Your task to perform on an android device: clear history in the chrome app Image 0: 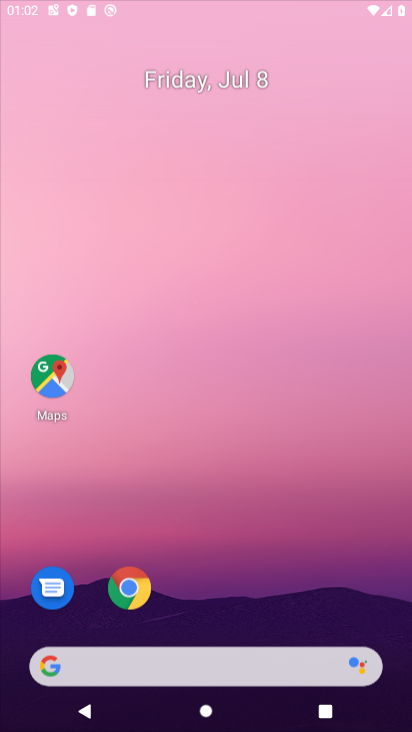
Step 0: click (266, 213)
Your task to perform on an android device: clear history in the chrome app Image 1: 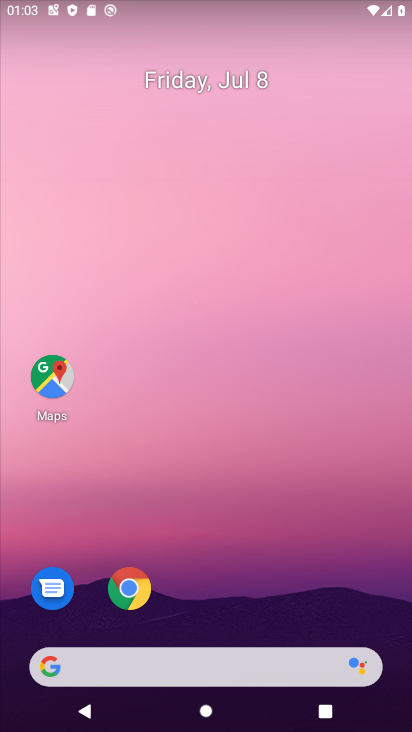
Step 1: drag from (176, 598) to (201, 49)
Your task to perform on an android device: clear history in the chrome app Image 2: 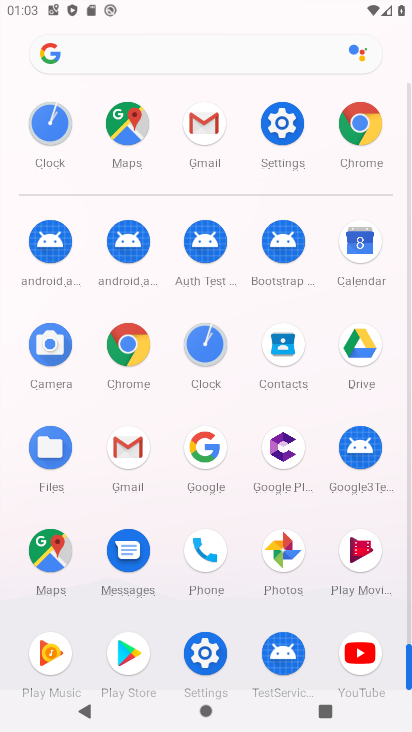
Step 2: click (127, 335)
Your task to perform on an android device: clear history in the chrome app Image 3: 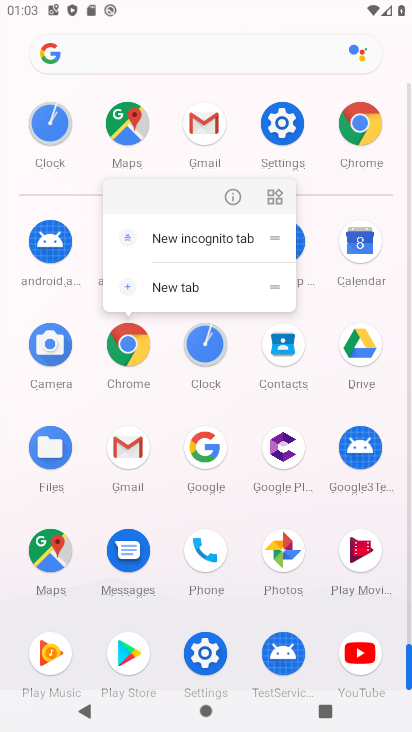
Step 3: click (225, 198)
Your task to perform on an android device: clear history in the chrome app Image 4: 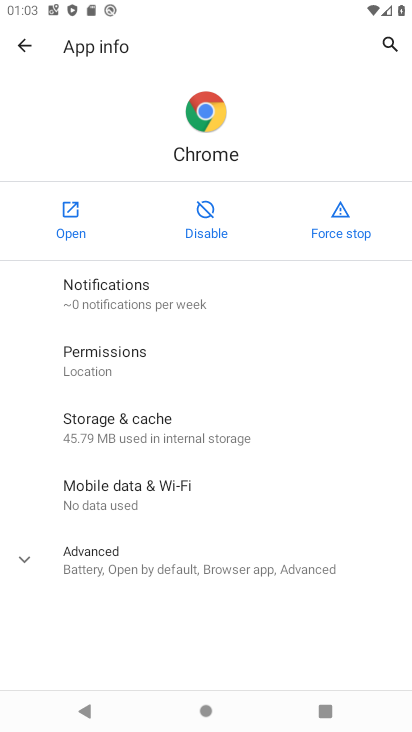
Step 4: click (60, 208)
Your task to perform on an android device: clear history in the chrome app Image 5: 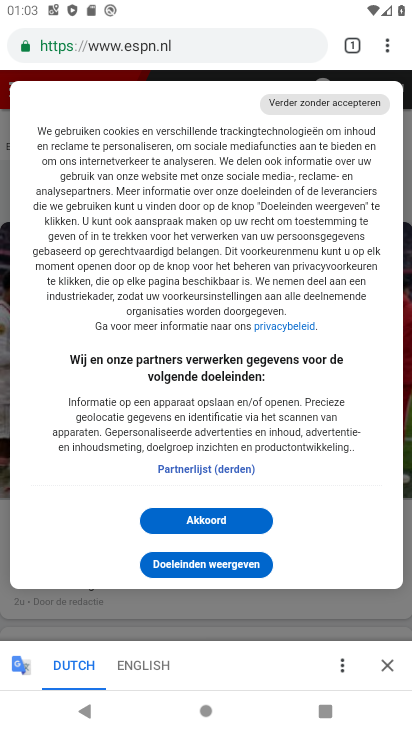
Step 5: click (388, 45)
Your task to perform on an android device: clear history in the chrome app Image 6: 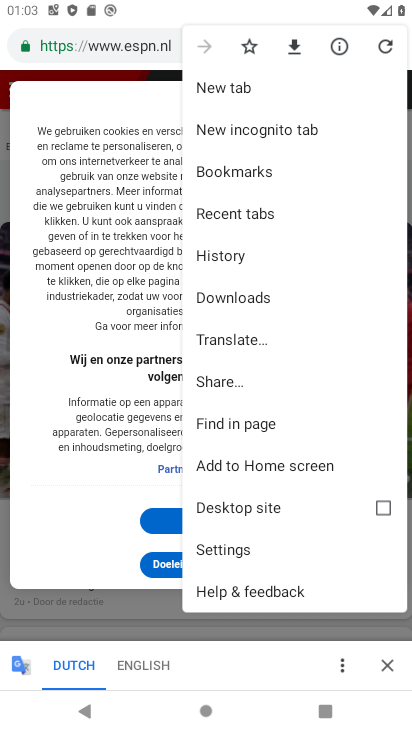
Step 6: drag from (286, 531) to (215, 43)
Your task to perform on an android device: clear history in the chrome app Image 7: 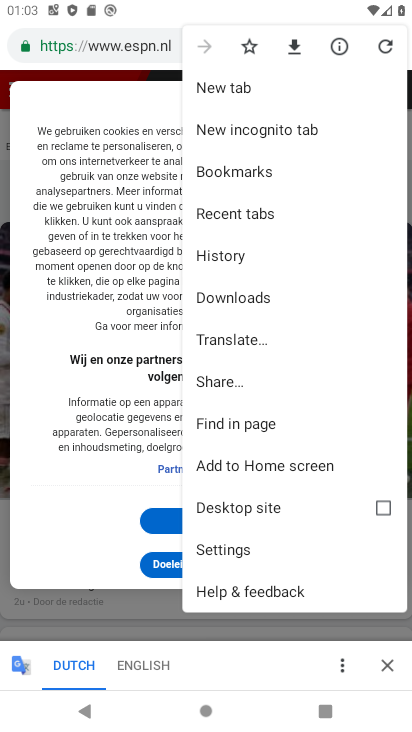
Step 7: click (236, 245)
Your task to perform on an android device: clear history in the chrome app Image 8: 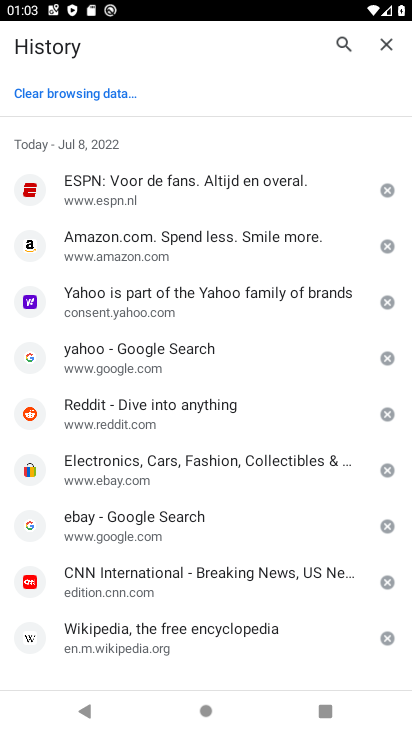
Step 8: drag from (203, 488) to (62, 5)
Your task to perform on an android device: clear history in the chrome app Image 9: 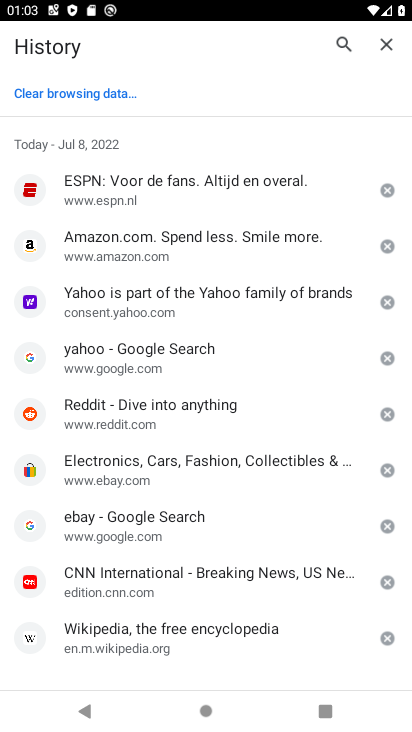
Step 9: click (59, 104)
Your task to perform on an android device: clear history in the chrome app Image 10: 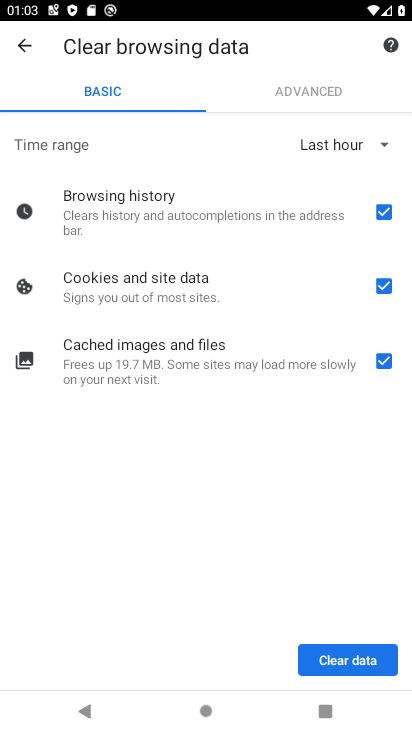
Step 10: click (302, 139)
Your task to perform on an android device: clear history in the chrome app Image 11: 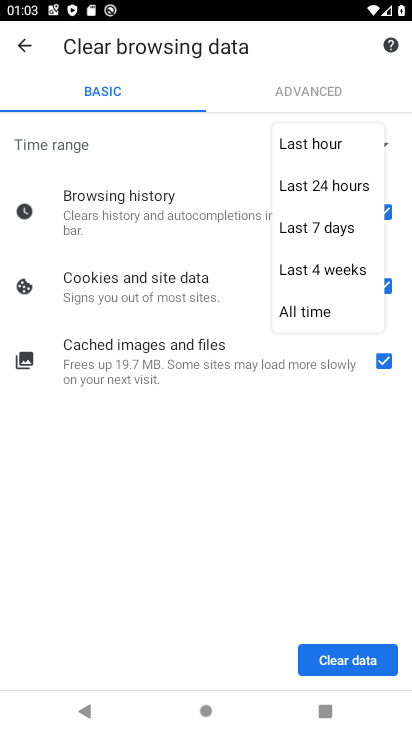
Step 11: click (311, 310)
Your task to perform on an android device: clear history in the chrome app Image 12: 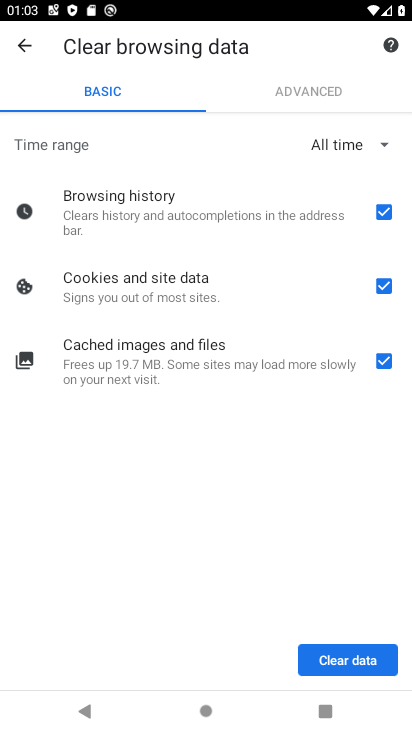
Step 12: click (367, 663)
Your task to perform on an android device: clear history in the chrome app Image 13: 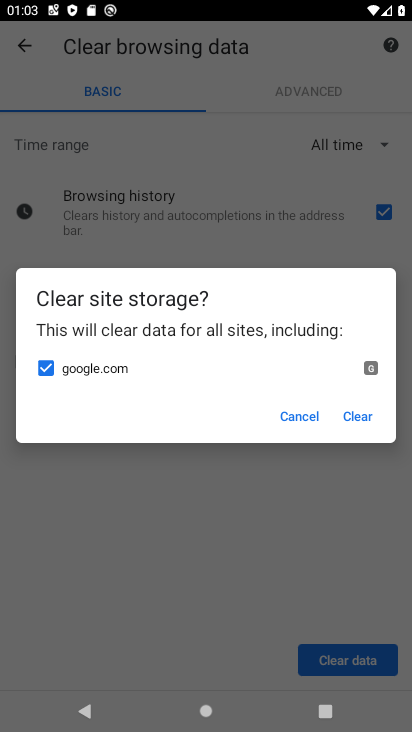
Step 13: click (351, 418)
Your task to perform on an android device: clear history in the chrome app Image 14: 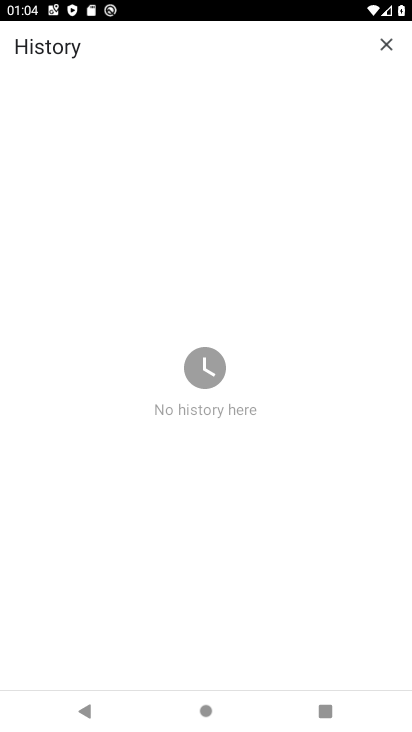
Step 14: drag from (183, 629) to (174, 177)
Your task to perform on an android device: clear history in the chrome app Image 15: 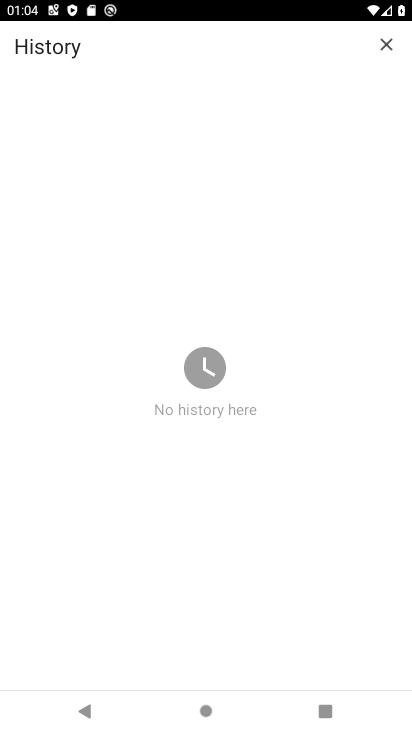
Step 15: press home button
Your task to perform on an android device: clear history in the chrome app Image 16: 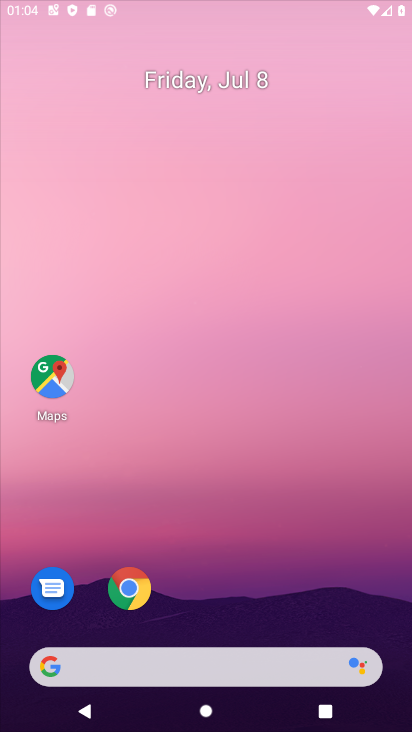
Step 16: drag from (149, 476) to (233, 5)
Your task to perform on an android device: clear history in the chrome app Image 17: 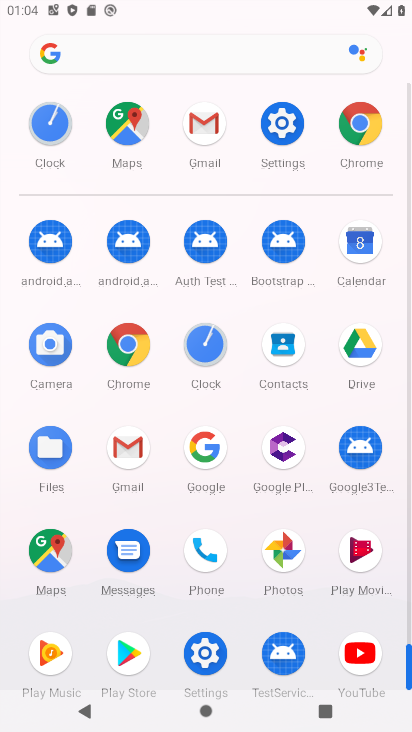
Step 17: click (126, 338)
Your task to perform on an android device: clear history in the chrome app Image 18: 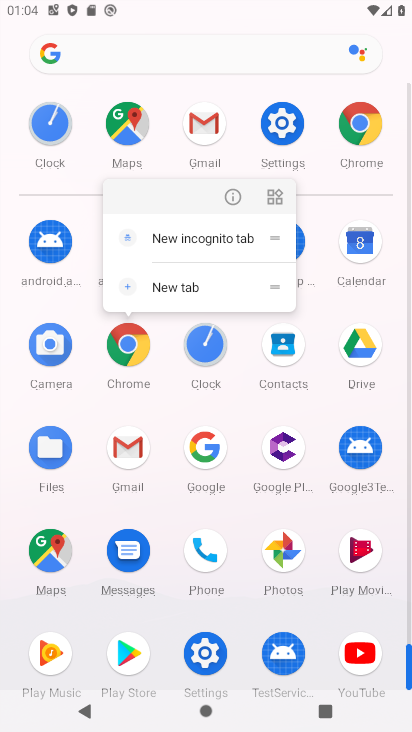
Step 18: click (231, 187)
Your task to perform on an android device: clear history in the chrome app Image 19: 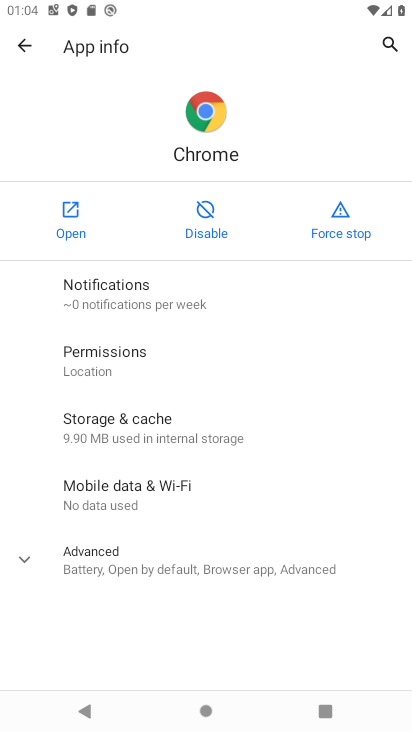
Step 19: click (72, 219)
Your task to perform on an android device: clear history in the chrome app Image 20: 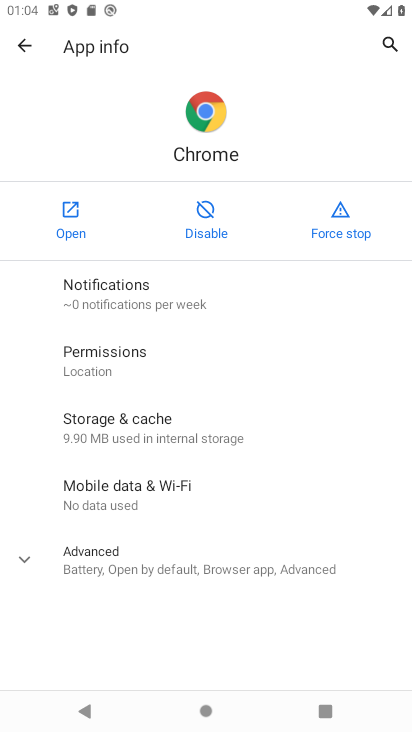
Step 20: click (72, 219)
Your task to perform on an android device: clear history in the chrome app Image 21: 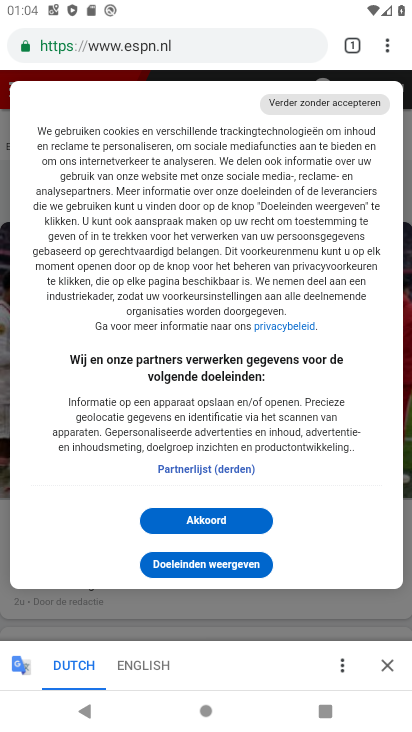
Step 21: click (383, 40)
Your task to perform on an android device: clear history in the chrome app Image 22: 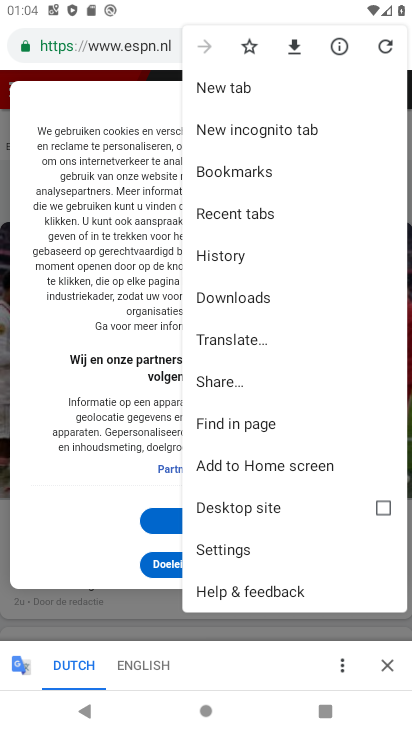
Step 22: drag from (261, 420) to (257, 190)
Your task to perform on an android device: clear history in the chrome app Image 23: 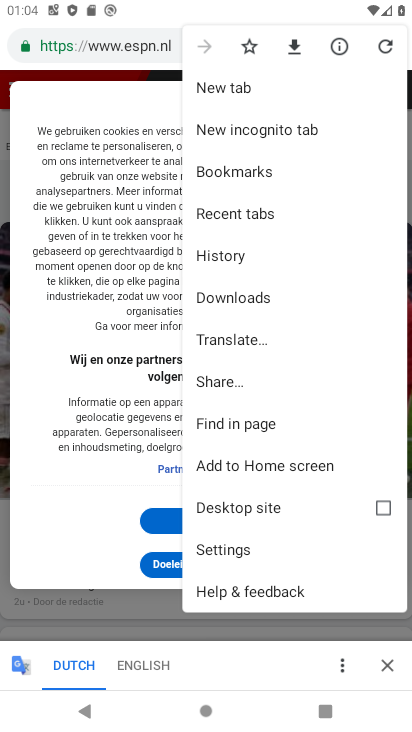
Step 23: click (218, 257)
Your task to perform on an android device: clear history in the chrome app Image 24: 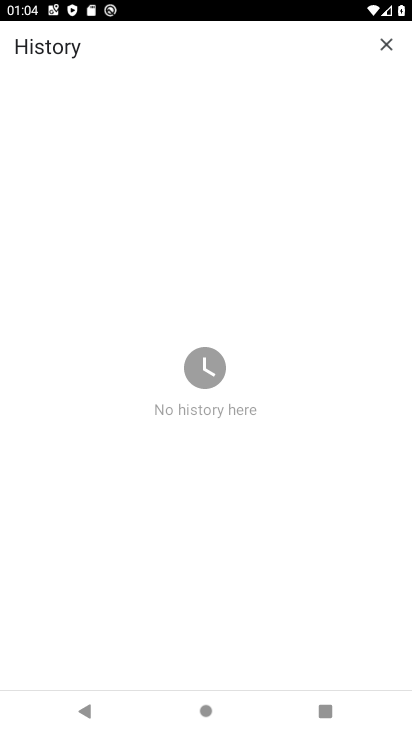
Step 24: task complete